Your task to perform on an android device: Go to calendar. Show me events next week Image 0: 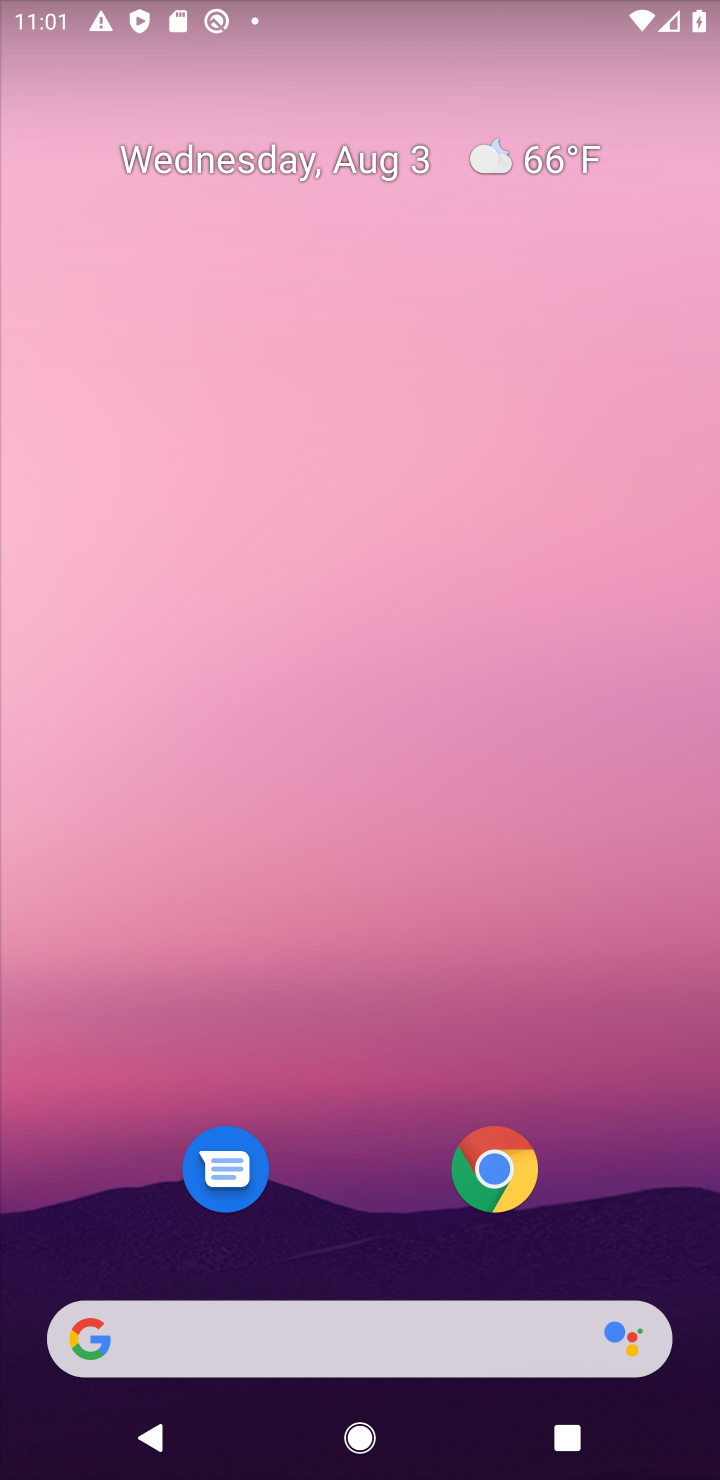
Step 0: drag from (355, 1022) to (336, 47)
Your task to perform on an android device: Go to calendar. Show me events next week Image 1: 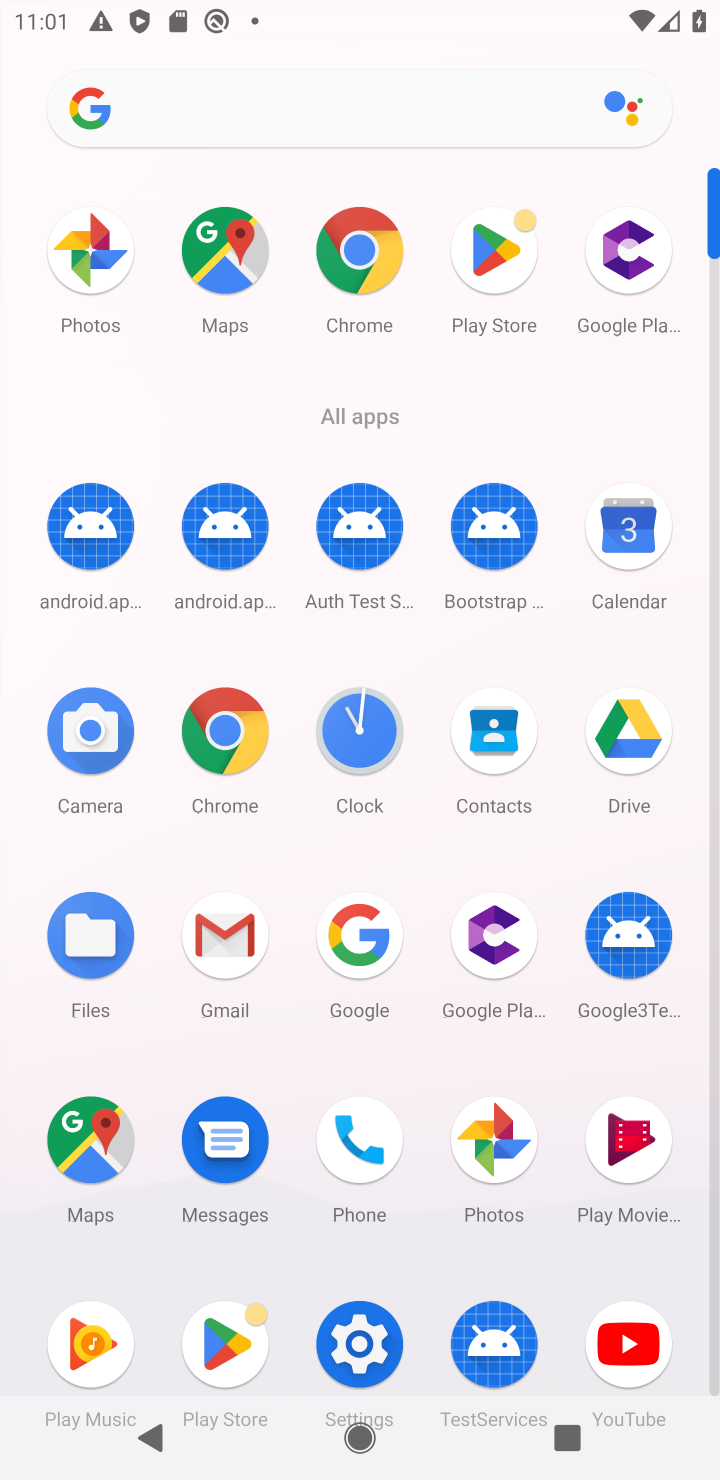
Step 1: click (647, 541)
Your task to perform on an android device: Go to calendar. Show me events next week Image 2: 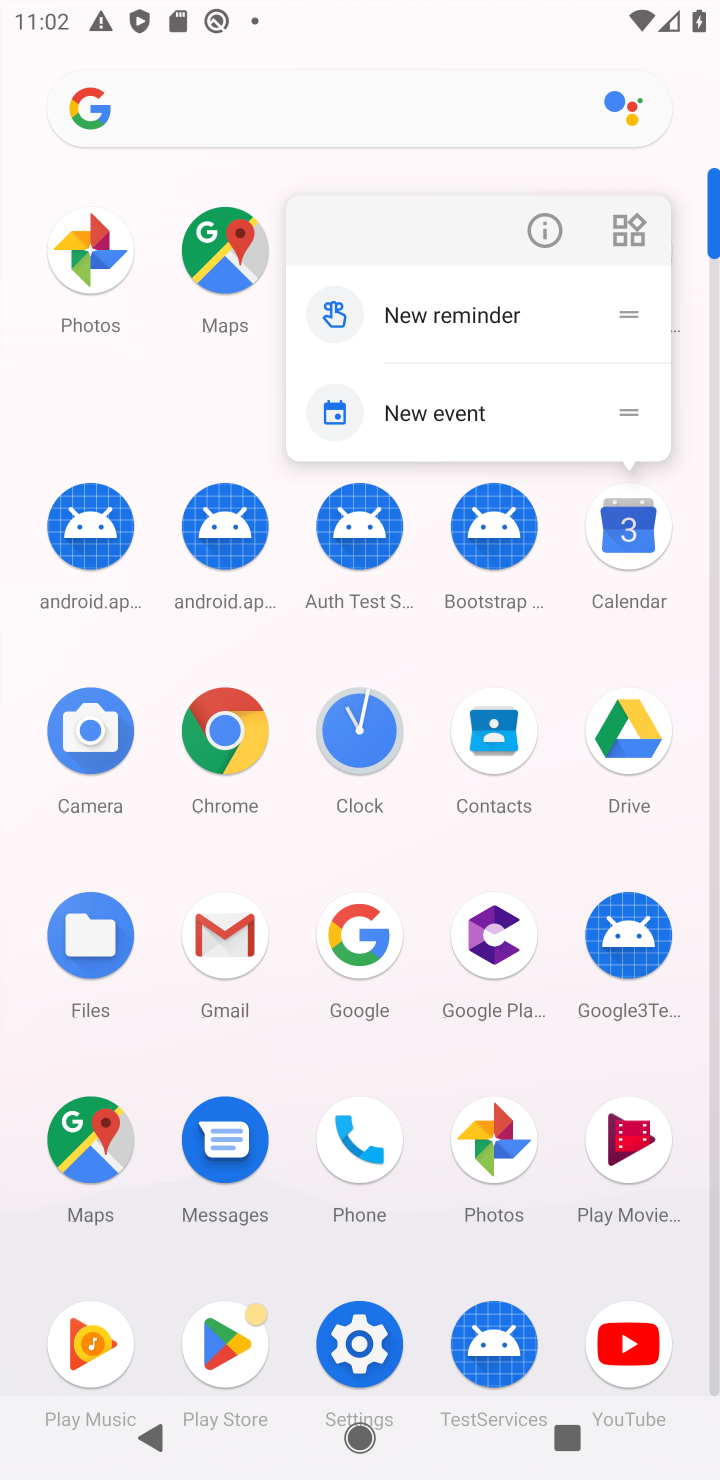
Step 2: click (637, 544)
Your task to perform on an android device: Go to calendar. Show me events next week Image 3: 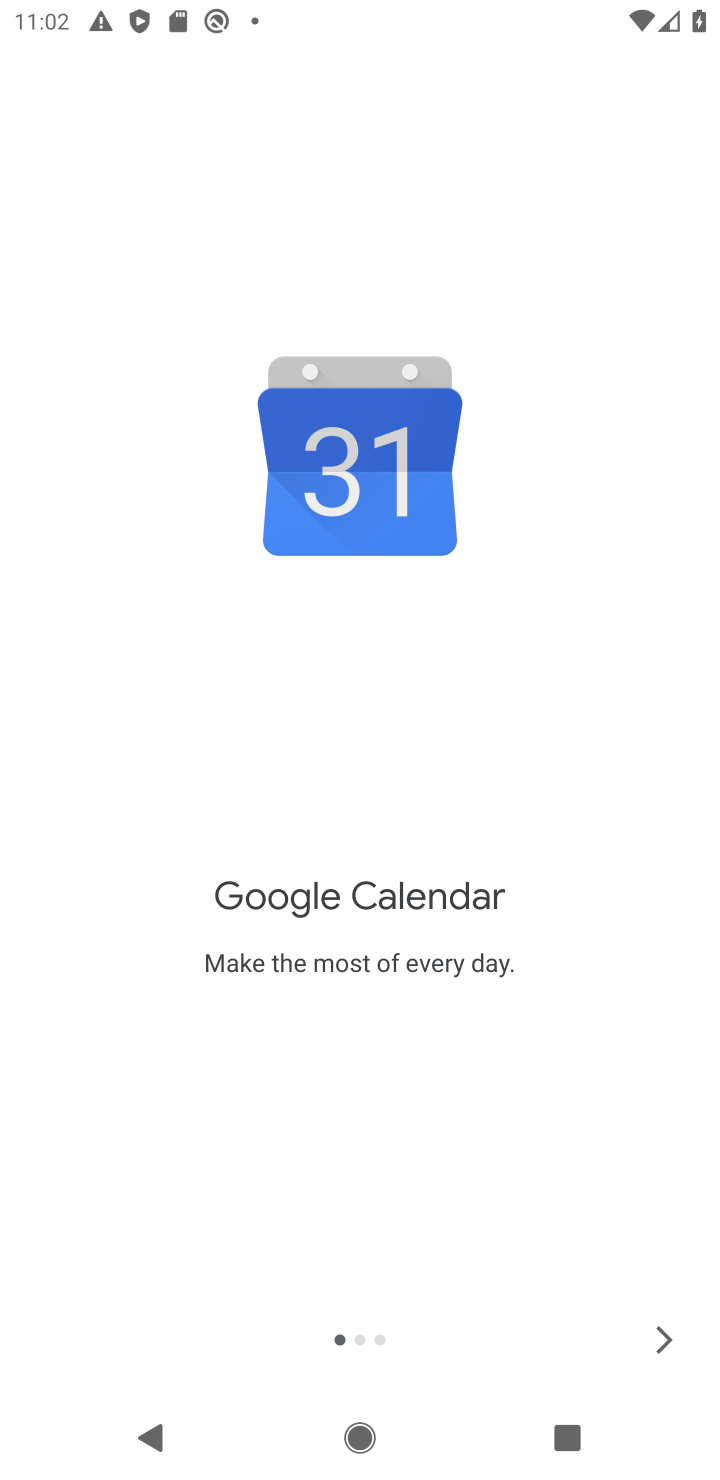
Step 3: click (665, 1337)
Your task to perform on an android device: Go to calendar. Show me events next week Image 4: 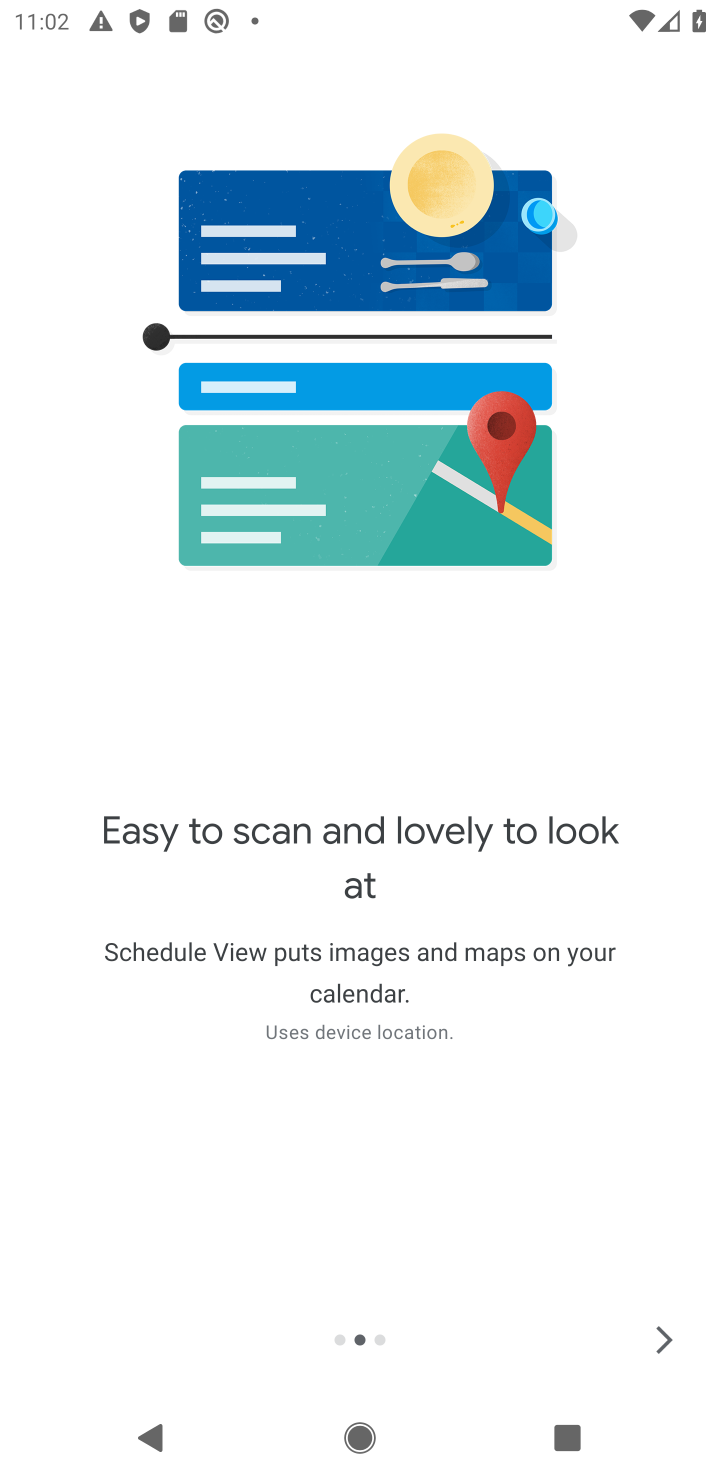
Step 4: click (665, 1337)
Your task to perform on an android device: Go to calendar. Show me events next week Image 5: 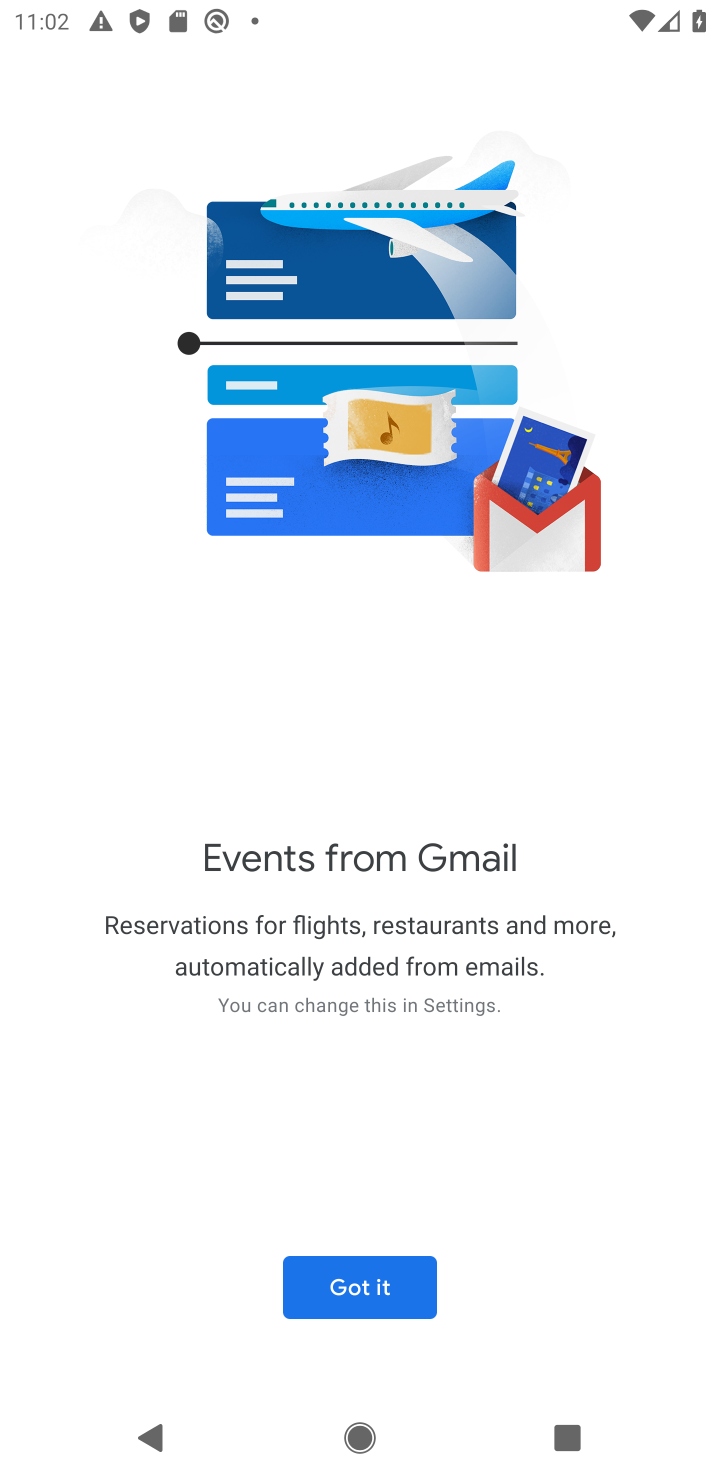
Step 5: click (349, 1289)
Your task to perform on an android device: Go to calendar. Show me events next week Image 6: 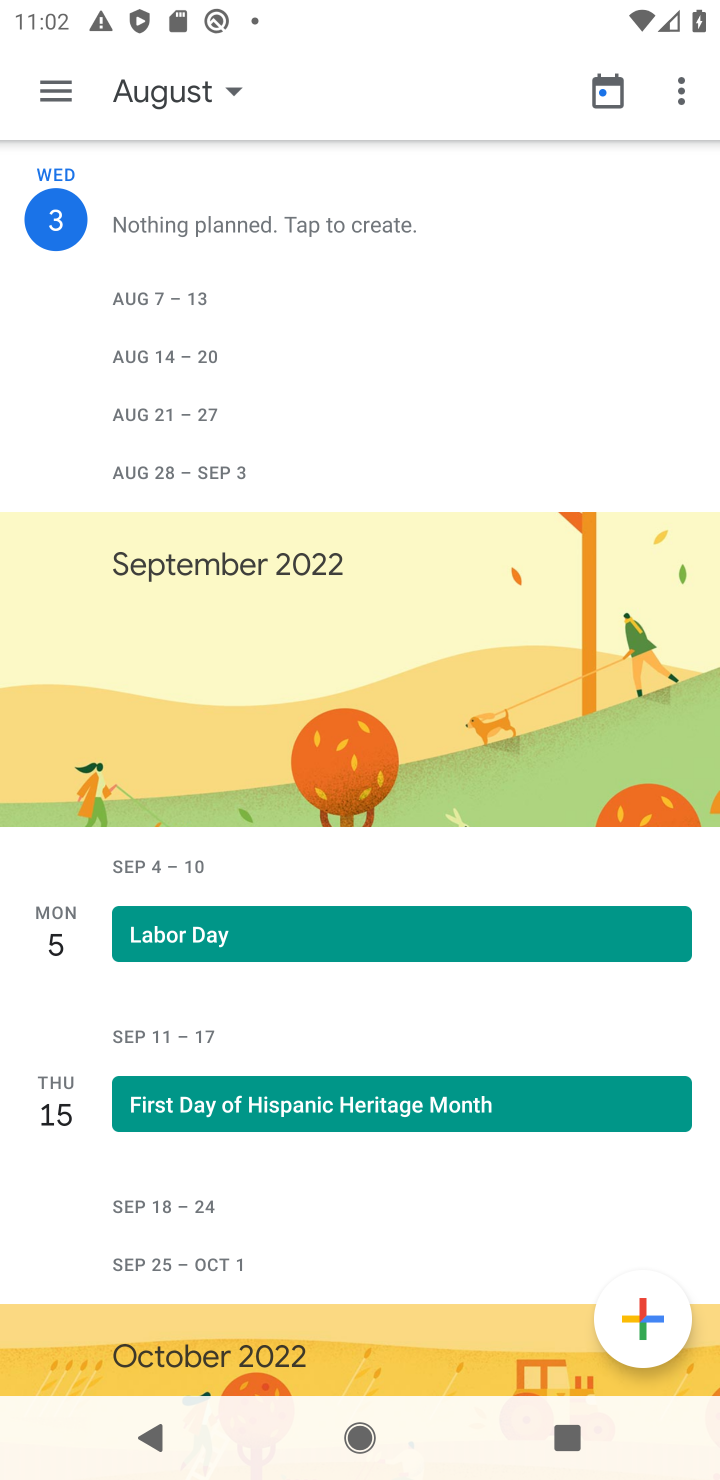
Step 6: click (76, 98)
Your task to perform on an android device: Go to calendar. Show me events next week Image 7: 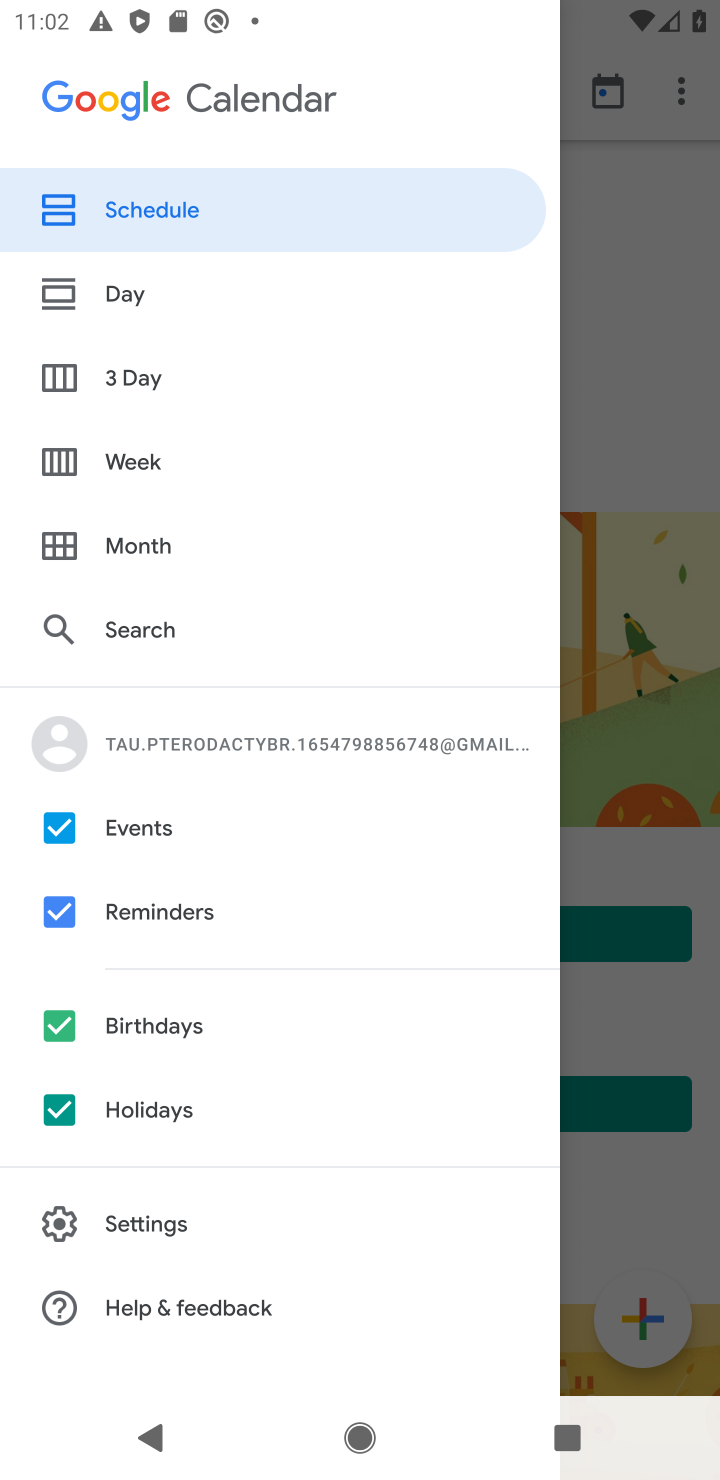
Step 7: click (104, 453)
Your task to perform on an android device: Go to calendar. Show me events next week Image 8: 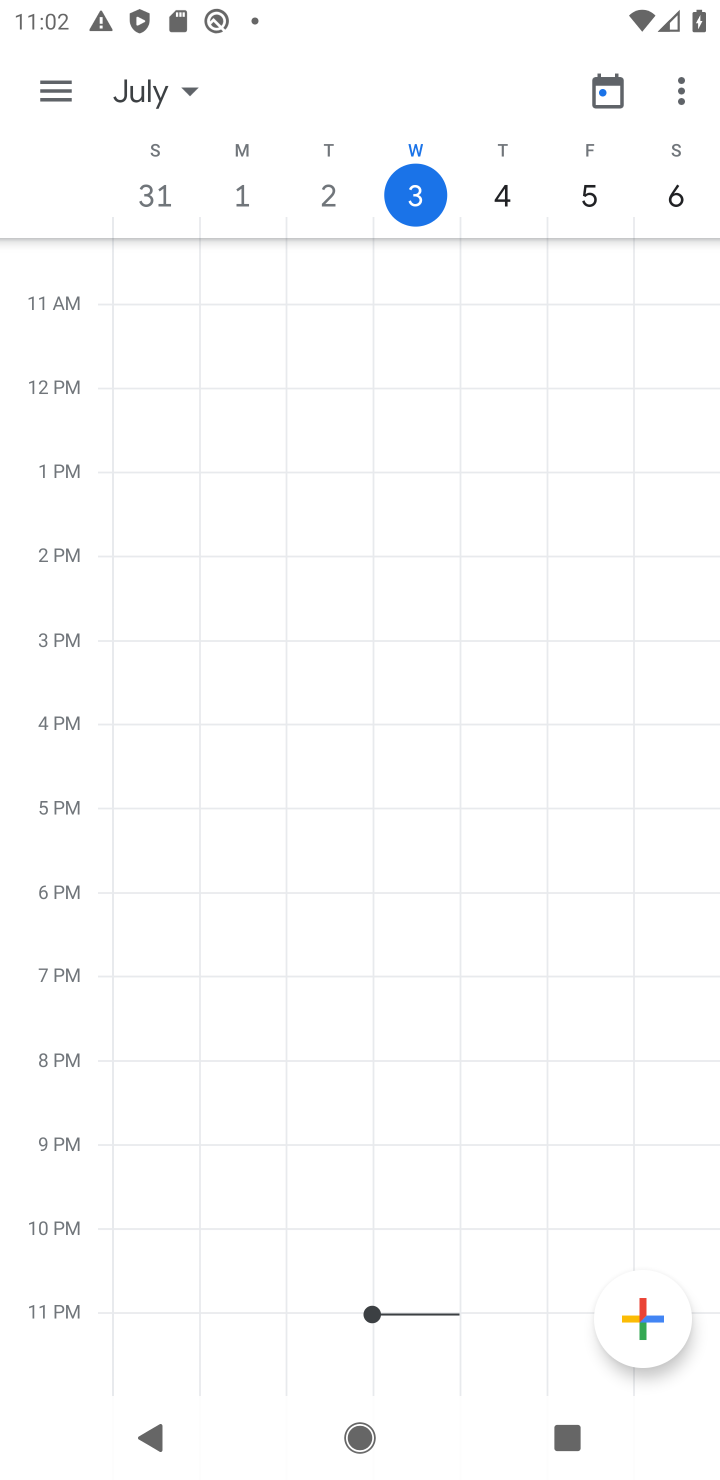
Step 8: task complete